Your task to perform on an android device: turn off location history Image 0: 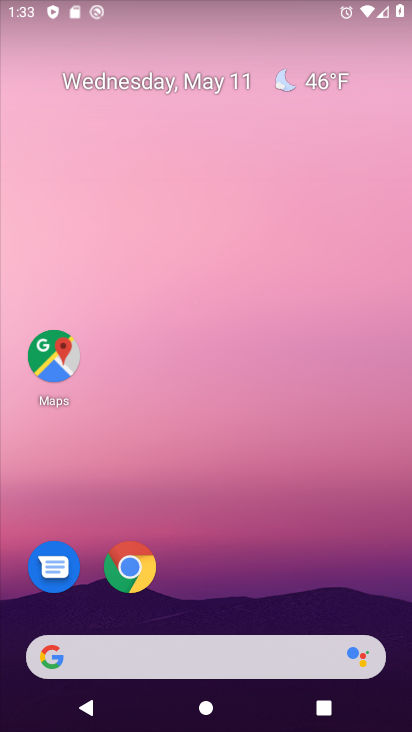
Step 0: drag from (239, 623) to (212, 2)
Your task to perform on an android device: turn off location history Image 1: 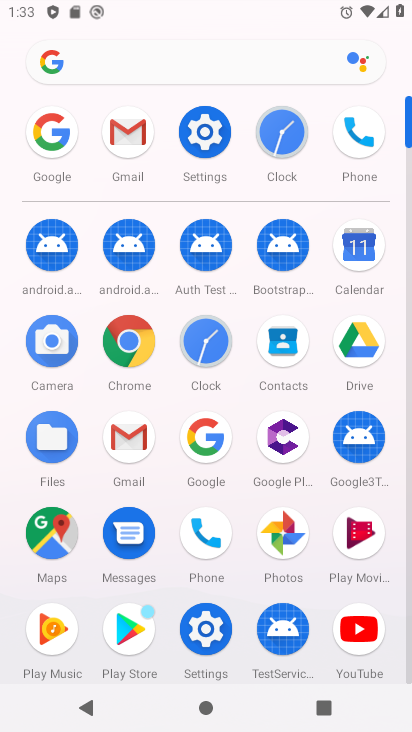
Step 1: click (205, 630)
Your task to perform on an android device: turn off location history Image 2: 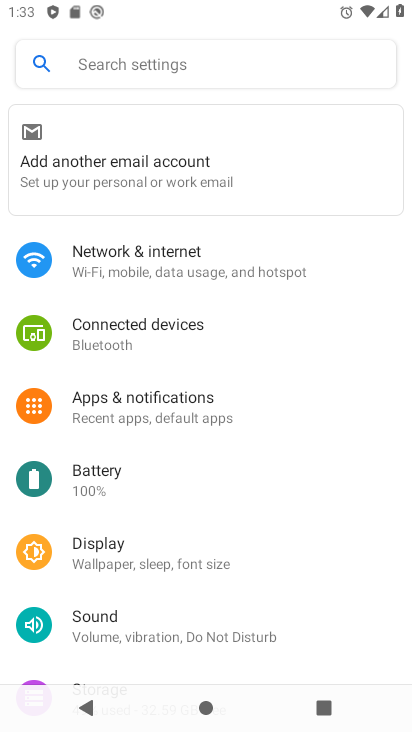
Step 2: drag from (259, 584) to (241, 233)
Your task to perform on an android device: turn off location history Image 3: 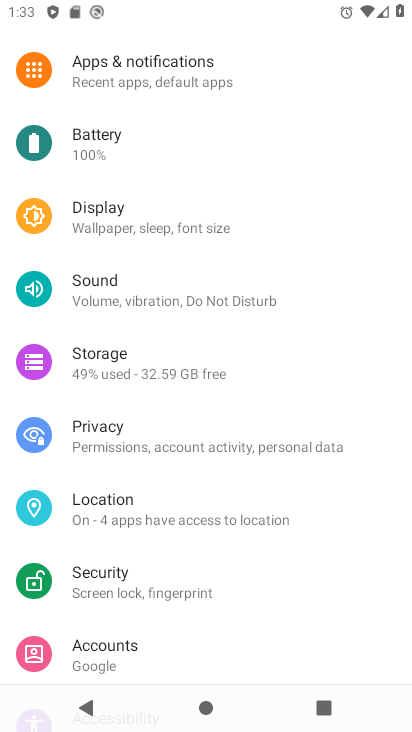
Step 3: click (100, 524)
Your task to perform on an android device: turn off location history Image 4: 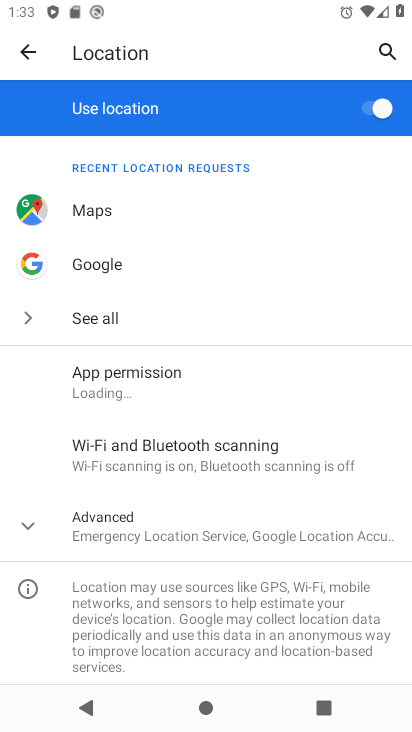
Step 4: click (129, 536)
Your task to perform on an android device: turn off location history Image 5: 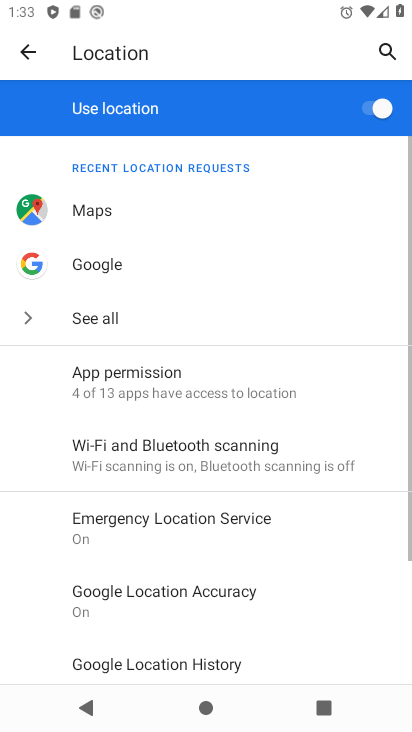
Step 5: click (186, 656)
Your task to perform on an android device: turn off location history Image 6: 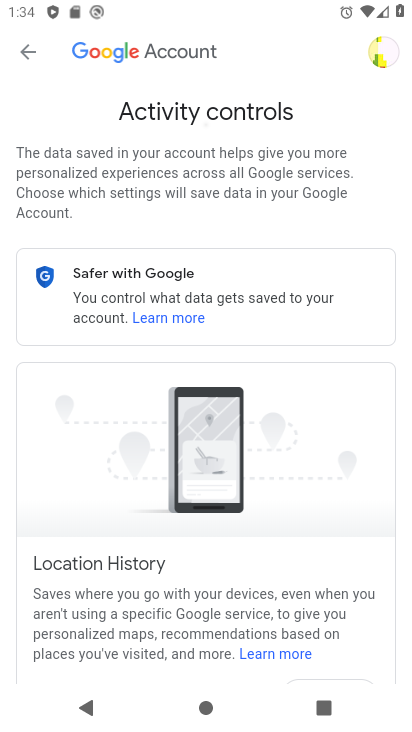
Step 6: task complete